Your task to perform on an android device: change alarm snooze length Image 0: 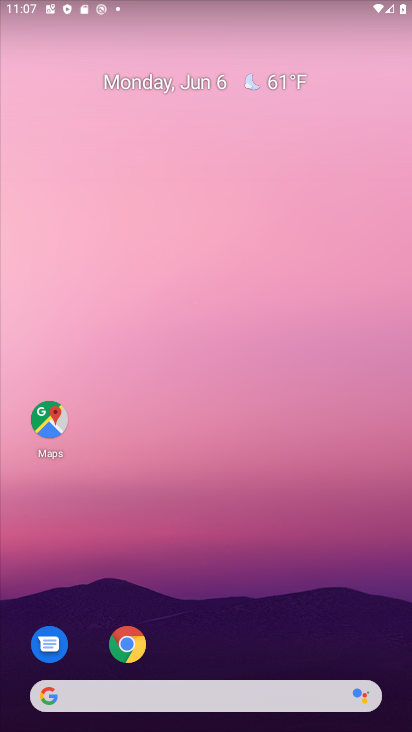
Step 0: drag from (208, 624) to (260, 348)
Your task to perform on an android device: change alarm snooze length Image 1: 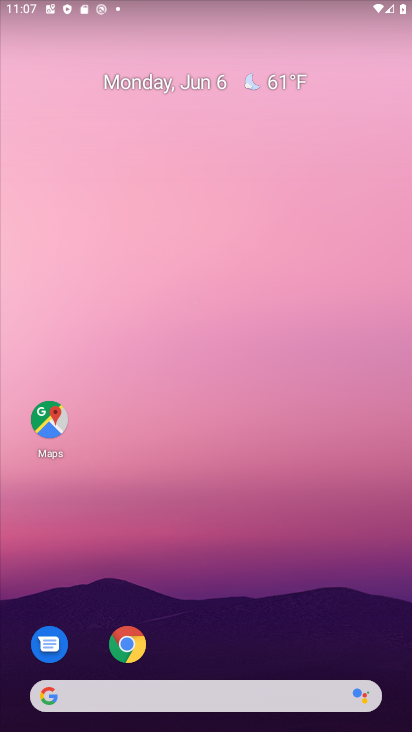
Step 1: drag from (157, 667) to (228, 209)
Your task to perform on an android device: change alarm snooze length Image 2: 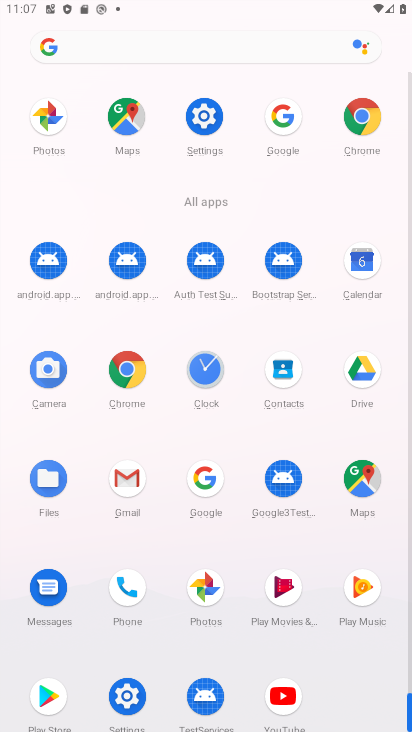
Step 2: click (198, 387)
Your task to perform on an android device: change alarm snooze length Image 3: 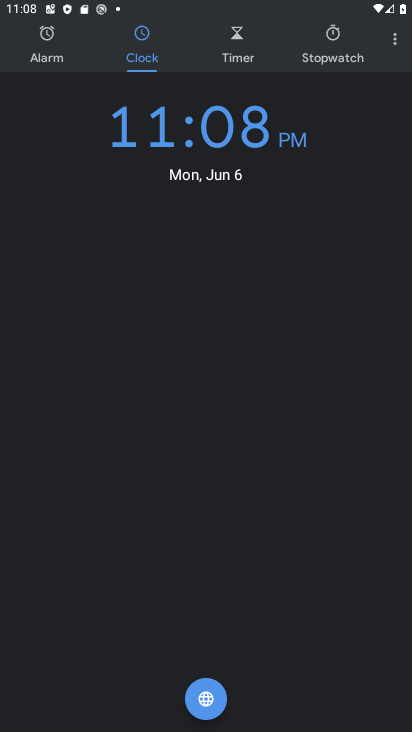
Step 3: click (394, 51)
Your task to perform on an android device: change alarm snooze length Image 4: 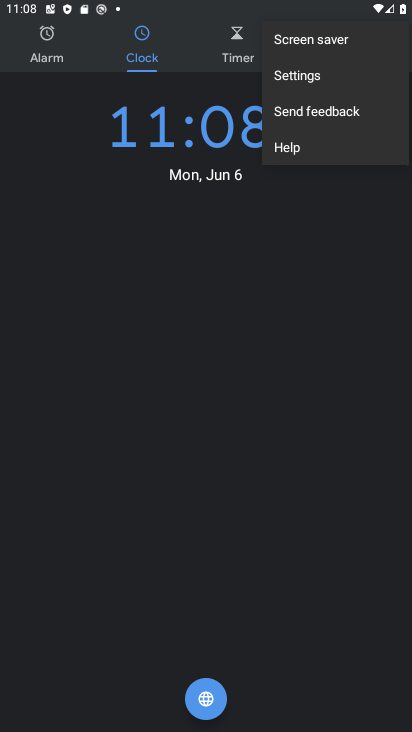
Step 4: click (297, 74)
Your task to perform on an android device: change alarm snooze length Image 5: 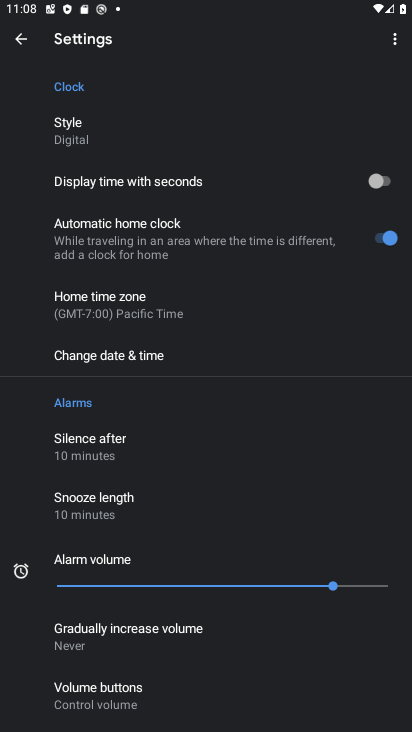
Step 5: drag from (81, 463) to (95, 75)
Your task to perform on an android device: change alarm snooze length Image 6: 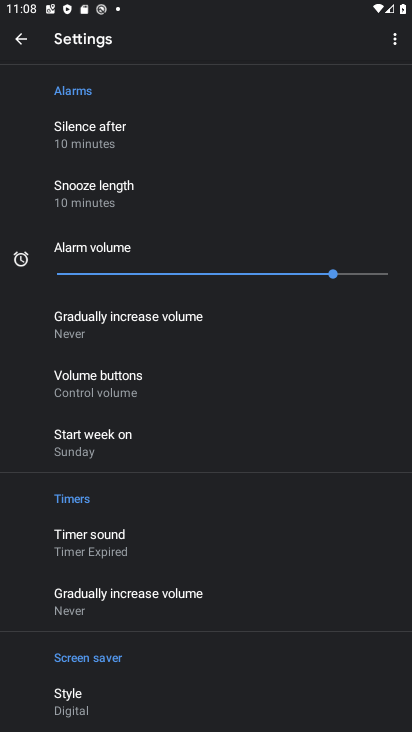
Step 6: drag from (153, 589) to (157, 246)
Your task to perform on an android device: change alarm snooze length Image 7: 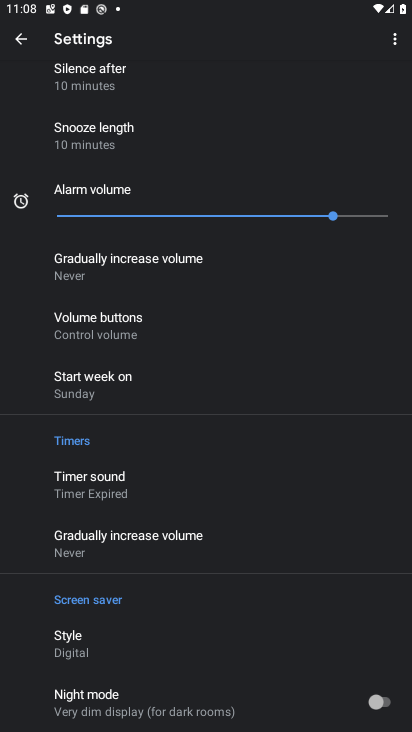
Step 7: drag from (172, 548) to (219, 678)
Your task to perform on an android device: change alarm snooze length Image 8: 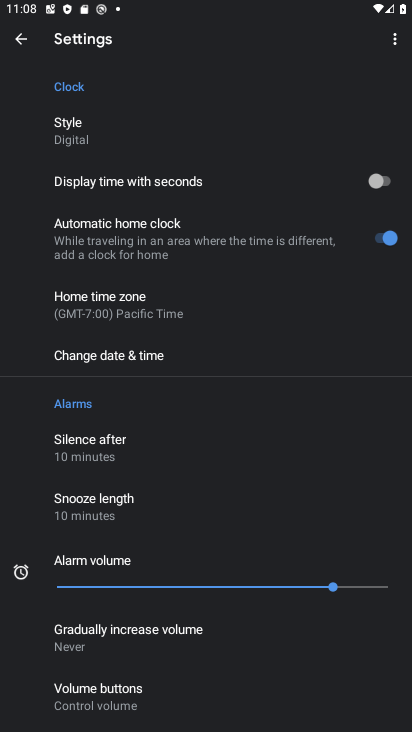
Step 8: click (187, 500)
Your task to perform on an android device: change alarm snooze length Image 9: 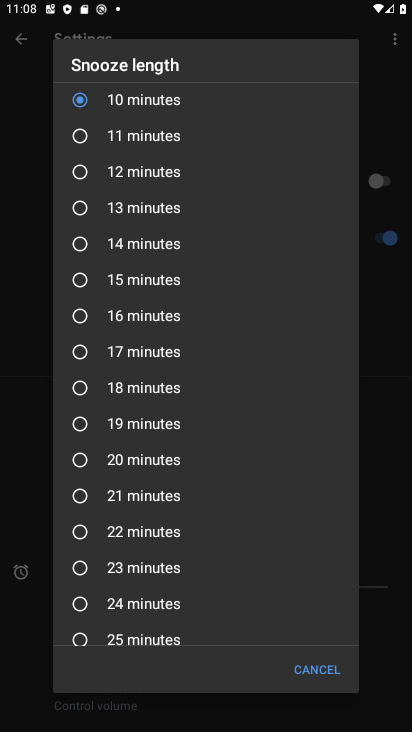
Step 9: click (83, 175)
Your task to perform on an android device: change alarm snooze length Image 10: 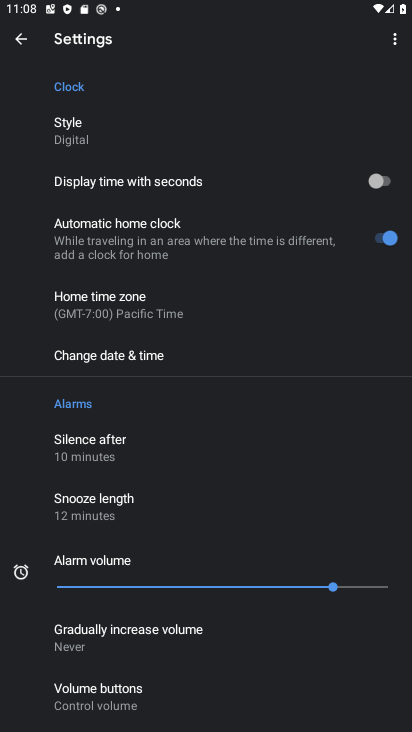
Step 10: task complete